Your task to perform on an android device: open app "DoorDash - Dasher" Image 0: 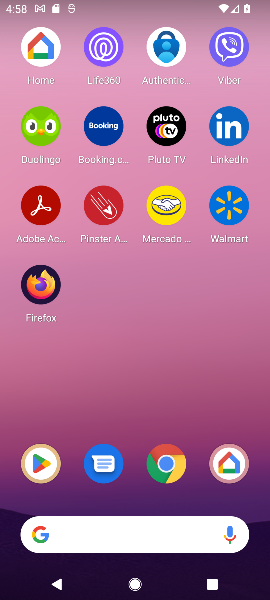
Step 0: press home button
Your task to perform on an android device: open app "DoorDash - Dasher" Image 1: 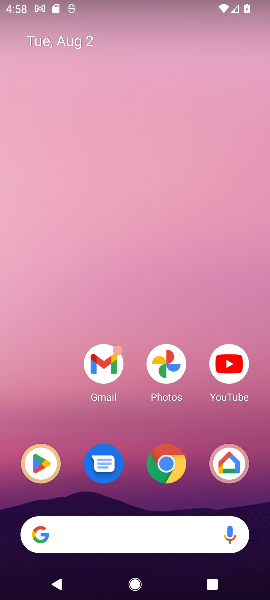
Step 1: click (41, 463)
Your task to perform on an android device: open app "DoorDash - Dasher" Image 2: 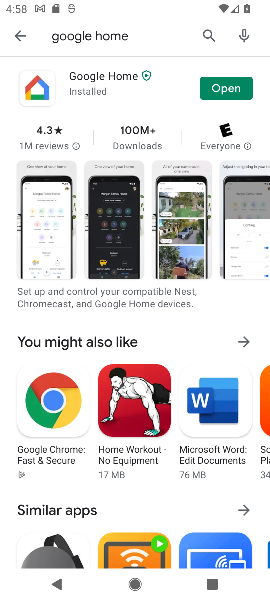
Step 2: click (208, 35)
Your task to perform on an android device: open app "DoorDash - Dasher" Image 3: 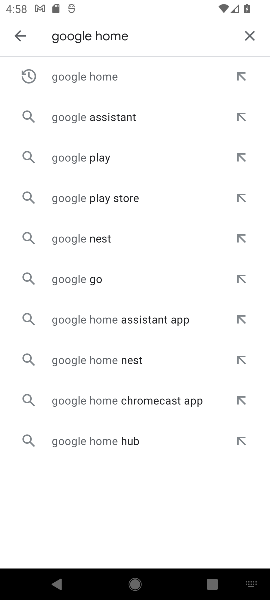
Step 3: click (248, 38)
Your task to perform on an android device: open app "DoorDash - Dasher" Image 4: 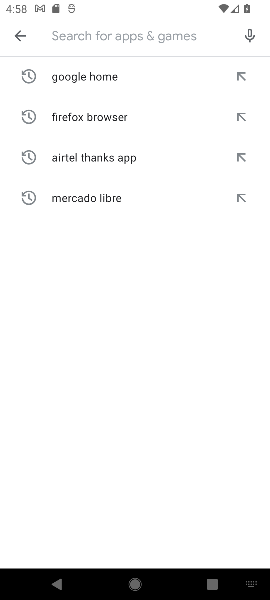
Step 4: type "DoorDash - Dasher"
Your task to perform on an android device: open app "DoorDash - Dasher" Image 5: 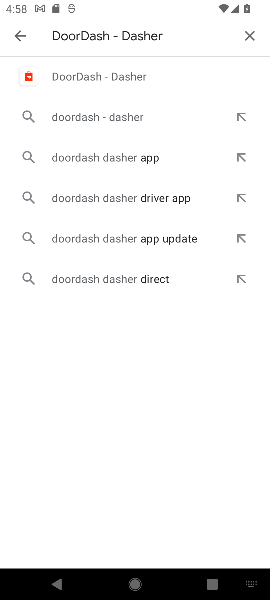
Step 5: click (131, 76)
Your task to perform on an android device: open app "DoorDash - Dasher" Image 6: 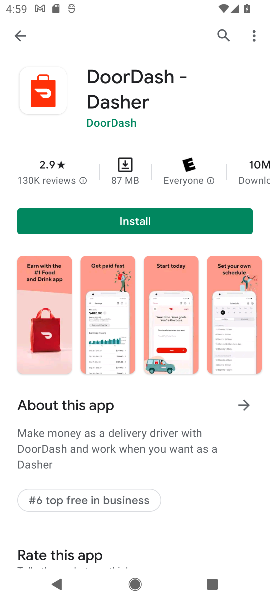
Step 6: task complete